Your task to perform on an android device: When is my next meeting? Image 0: 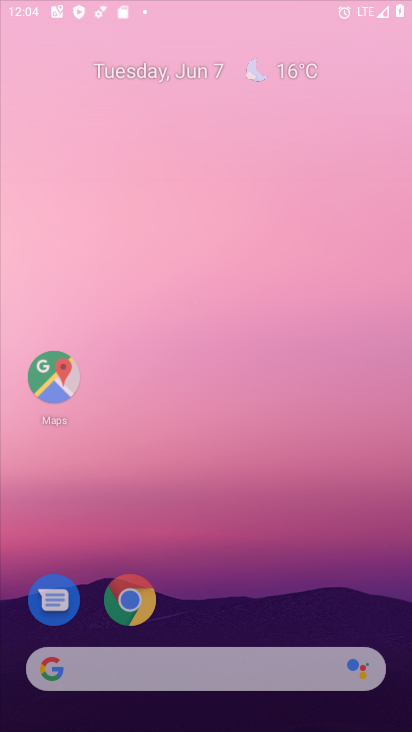
Step 0: press home button
Your task to perform on an android device: When is my next meeting? Image 1: 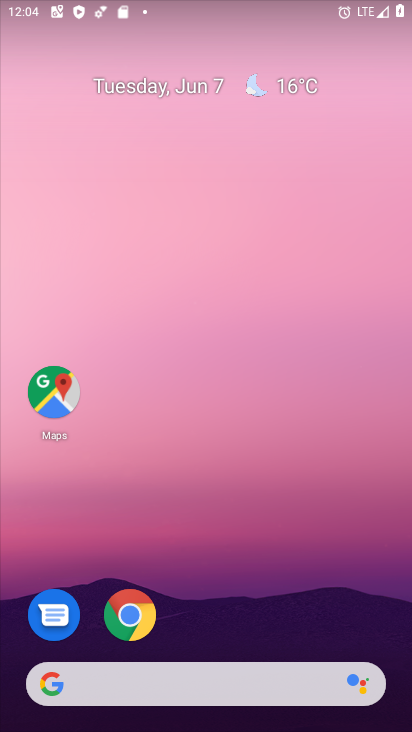
Step 1: drag from (218, 633) to (236, 103)
Your task to perform on an android device: When is my next meeting? Image 2: 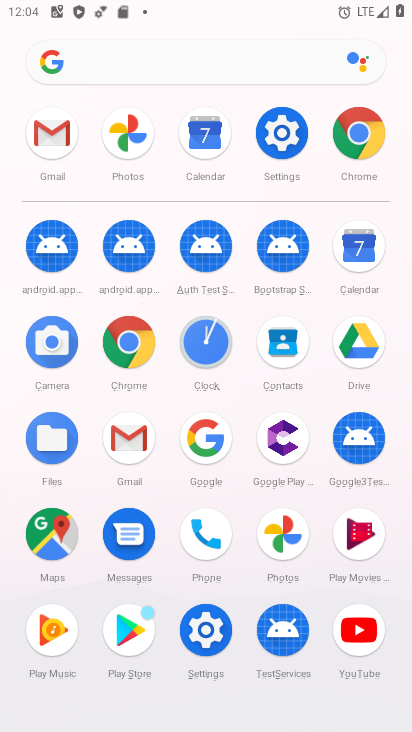
Step 2: click (351, 236)
Your task to perform on an android device: When is my next meeting? Image 3: 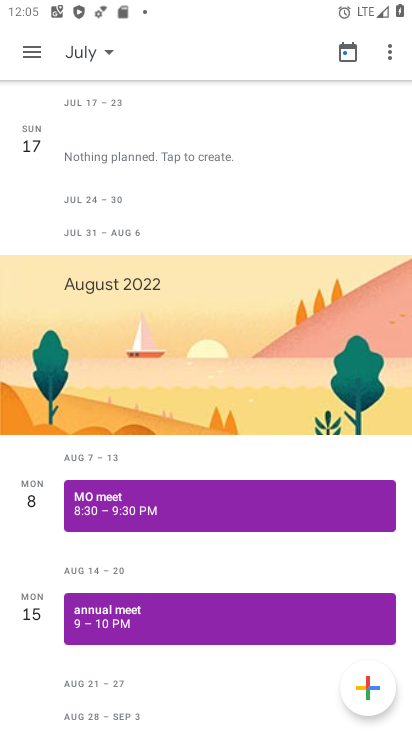
Step 3: click (101, 46)
Your task to perform on an android device: When is my next meeting? Image 4: 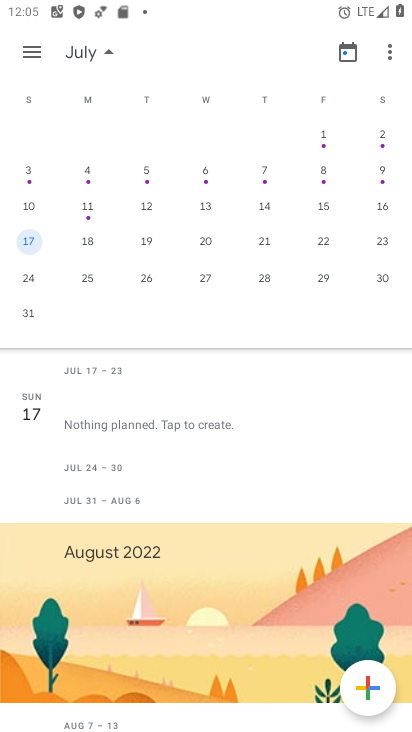
Step 4: drag from (58, 216) to (407, 210)
Your task to perform on an android device: When is my next meeting? Image 5: 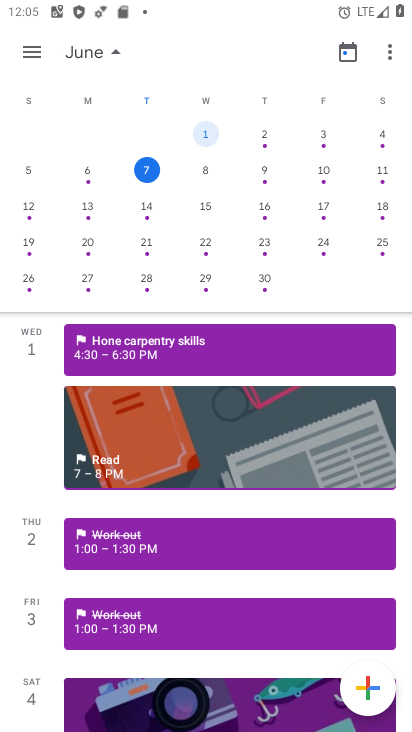
Step 5: click (152, 163)
Your task to perform on an android device: When is my next meeting? Image 6: 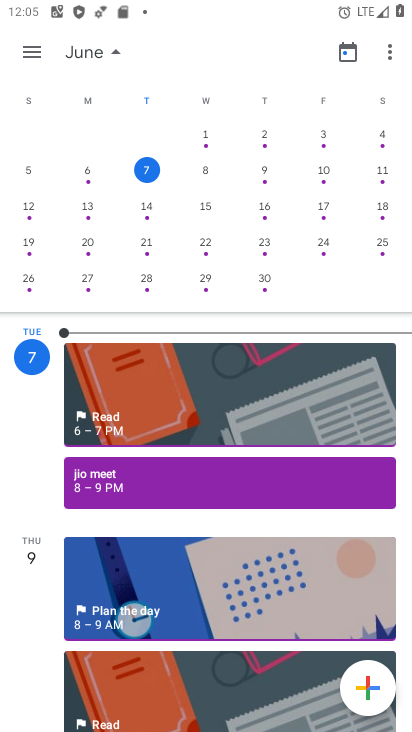
Step 6: click (114, 44)
Your task to perform on an android device: When is my next meeting? Image 7: 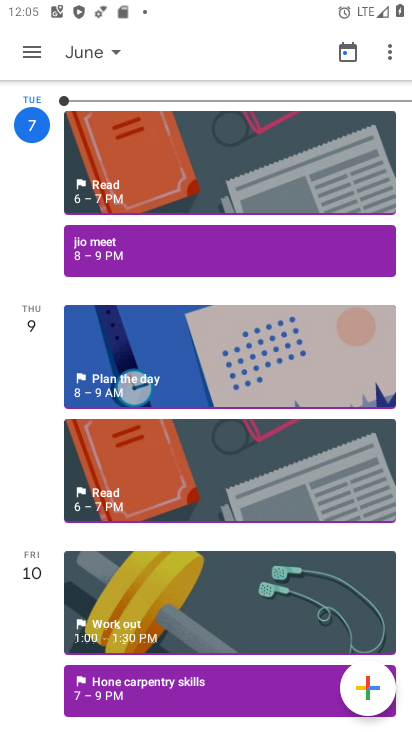
Step 7: task complete